Your task to perform on an android device: open a new tab in the chrome app Image 0: 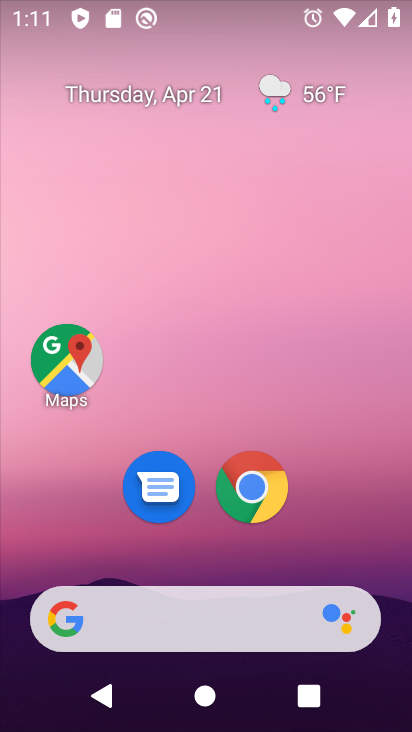
Step 0: click (260, 493)
Your task to perform on an android device: open a new tab in the chrome app Image 1: 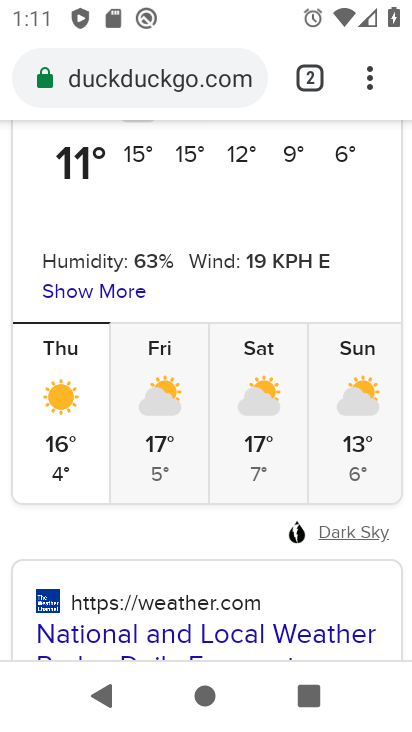
Step 1: click (312, 85)
Your task to perform on an android device: open a new tab in the chrome app Image 2: 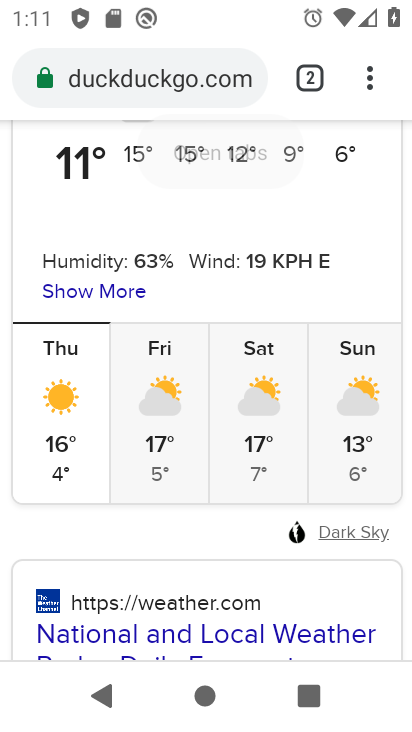
Step 2: click (310, 85)
Your task to perform on an android device: open a new tab in the chrome app Image 3: 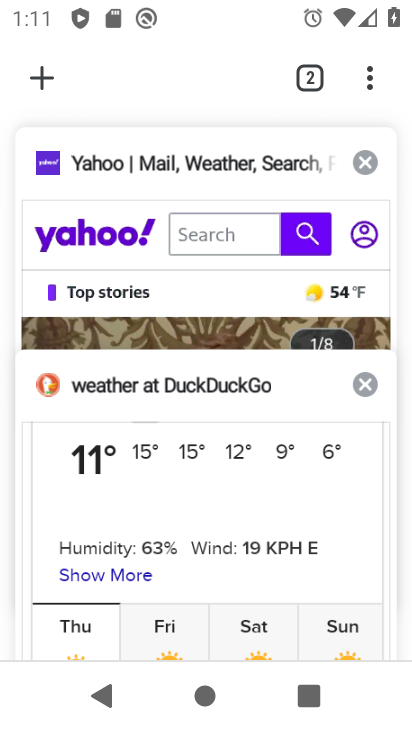
Step 3: click (38, 74)
Your task to perform on an android device: open a new tab in the chrome app Image 4: 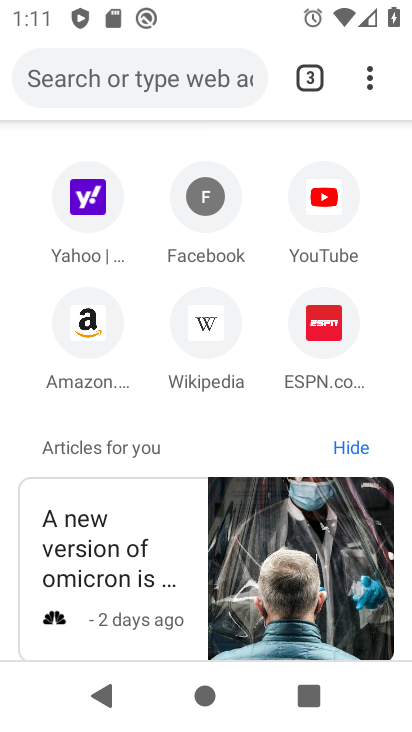
Step 4: task complete